Your task to perform on an android device: check android version Image 0: 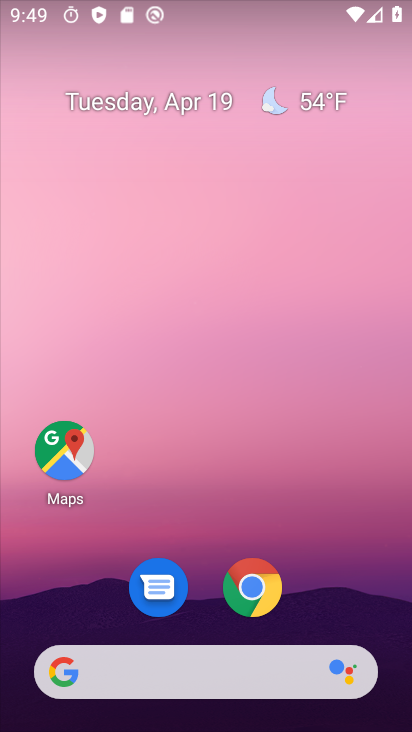
Step 0: drag from (342, 561) to (343, 56)
Your task to perform on an android device: check android version Image 1: 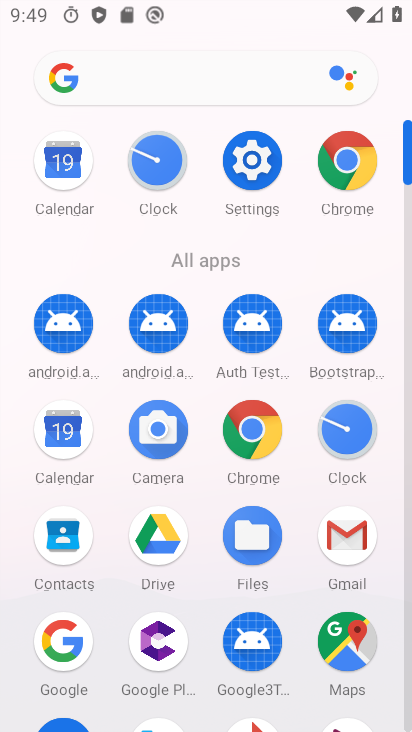
Step 1: click (260, 166)
Your task to perform on an android device: check android version Image 2: 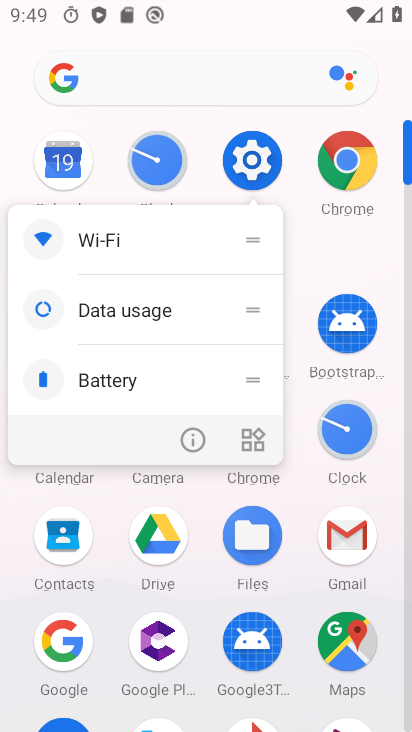
Step 2: click (260, 165)
Your task to perform on an android device: check android version Image 3: 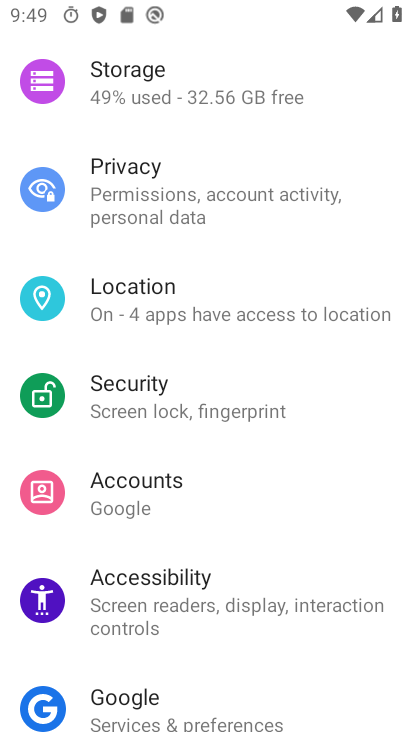
Step 3: drag from (180, 641) to (241, 189)
Your task to perform on an android device: check android version Image 4: 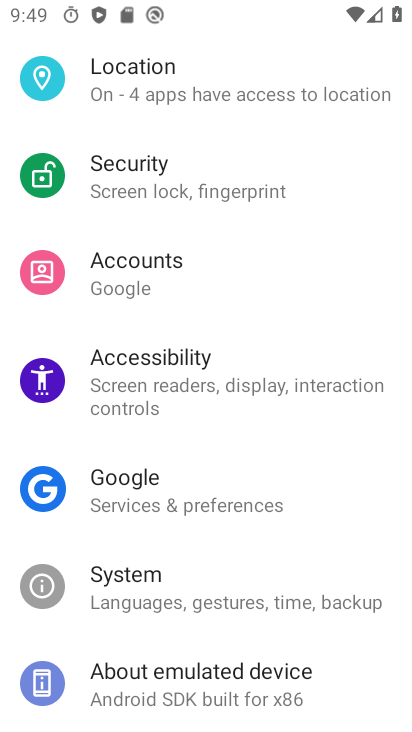
Step 4: drag from (219, 669) to (277, 166)
Your task to perform on an android device: check android version Image 5: 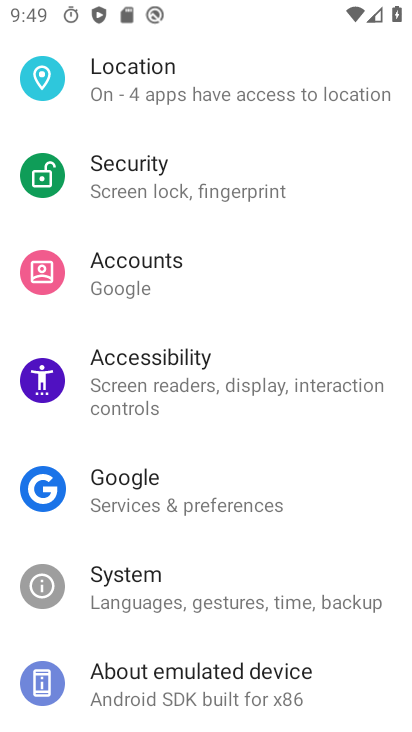
Step 5: click (146, 672)
Your task to perform on an android device: check android version Image 6: 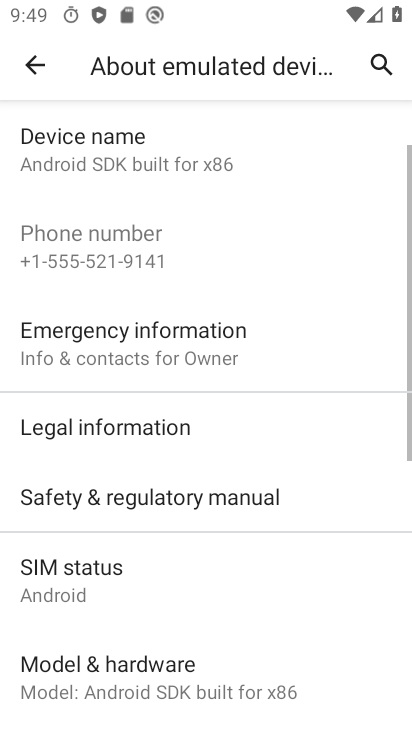
Step 6: drag from (162, 631) to (217, 272)
Your task to perform on an android device: check android version Image 7: 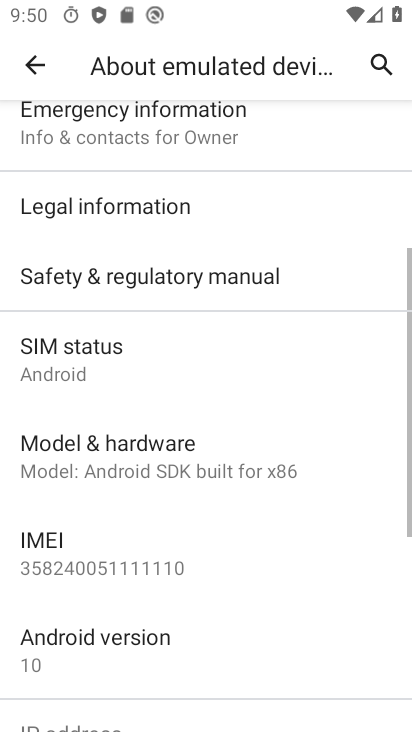
Step 7: drag from (101, 644) to (160, 253)
Your task to perform on an android device: check android version Image 8: 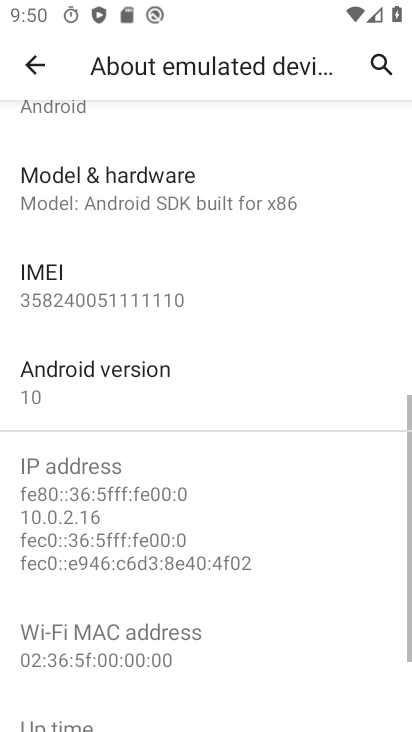
Step 8: click (73, 389)
Your task to perform on an android device: check android version Image 9: 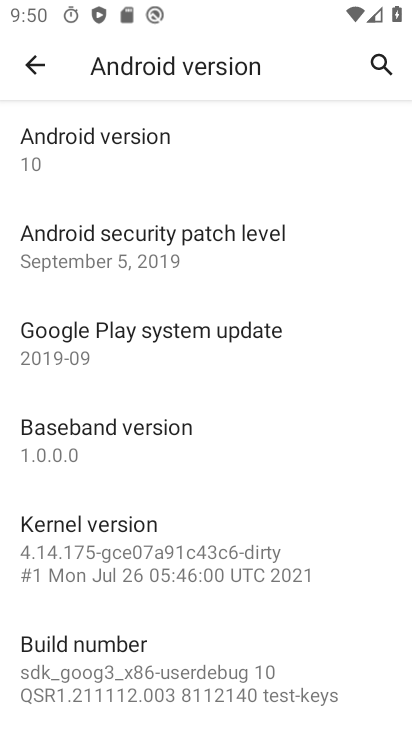
Step 9: task complete